Your task to perform on an android device: find which apps use the phone's location Image 0: 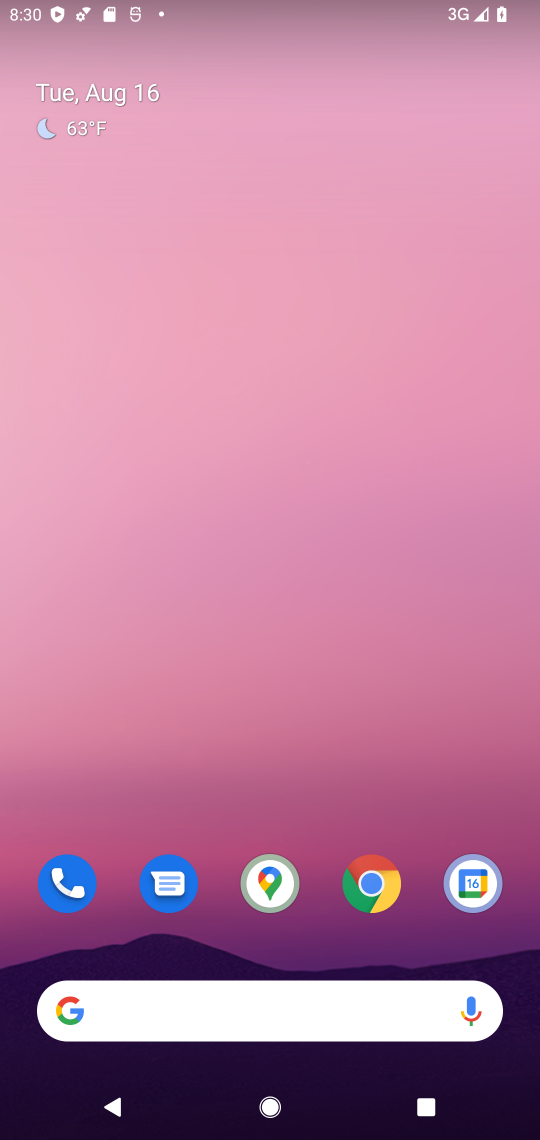
Step 0: drag from (426, 784) to (366, 110)
Your task to perform on an android device: find which apps use the phone's location Image 1: 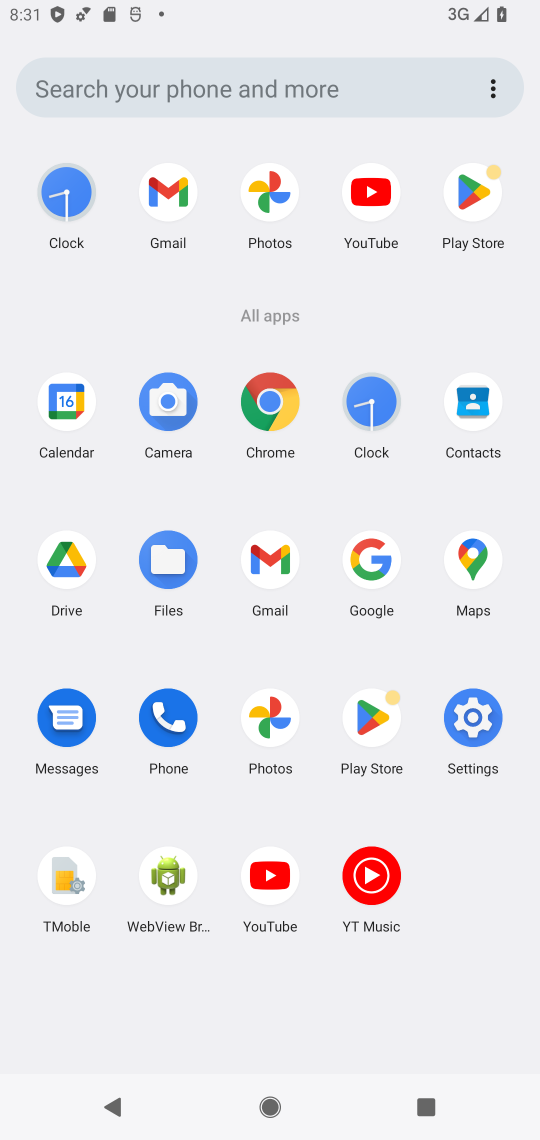
Step 1: click (466, 722)
Your task to perform on an android device: find which apps use the phone's location Image 2: 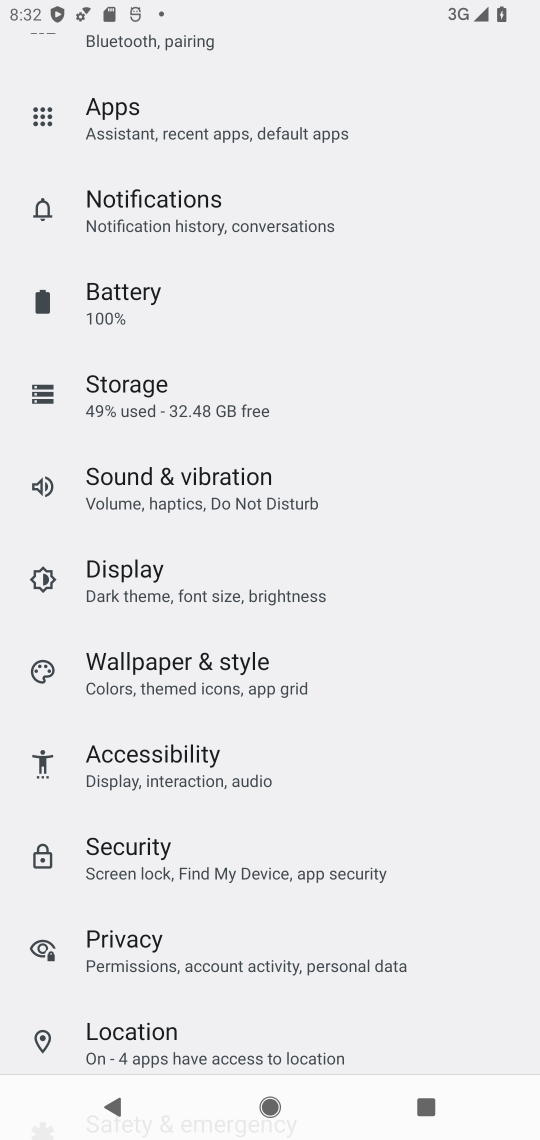
Step 2: click (154, 1014)
Your task to perform on an android device: find which apps use the phone's location Image 3: 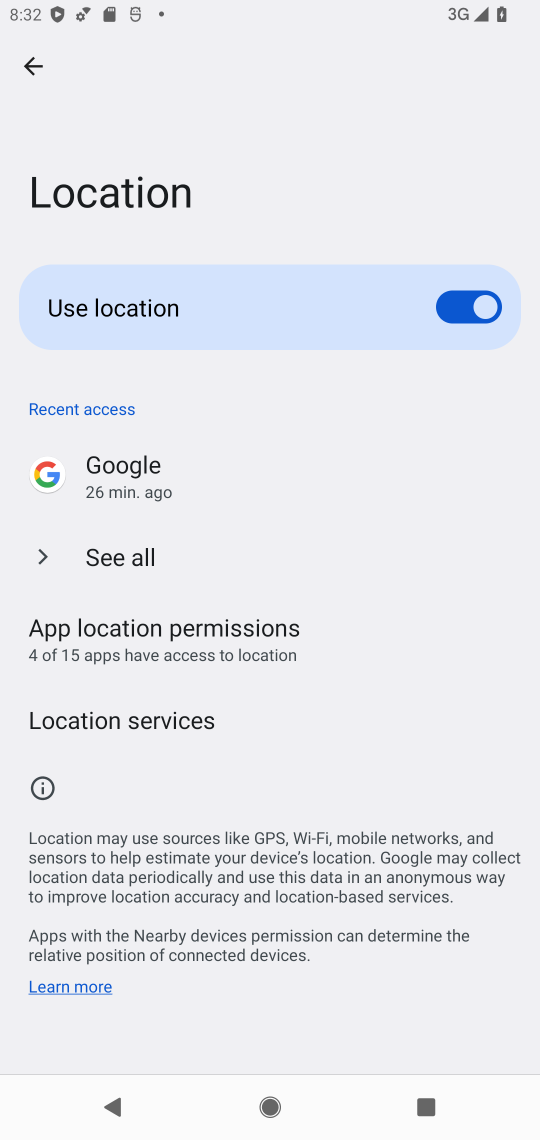
Step 3: click (199, 672)
Your task to perform on an android device: find which apps use the phone's location Image 4: 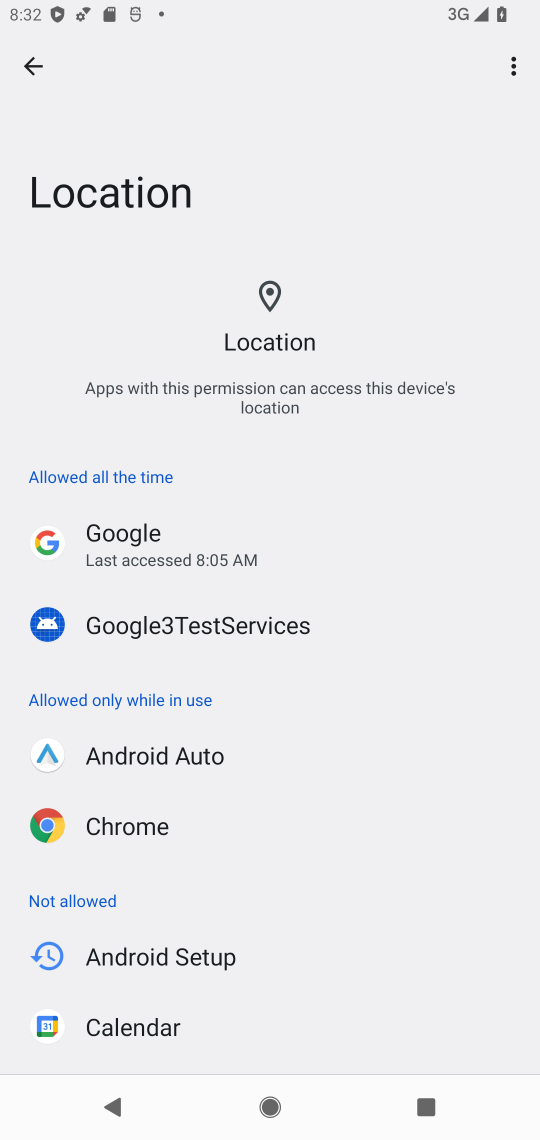
Step 4: task complete